Your task to perform on an android device: change the clock style Image 0: 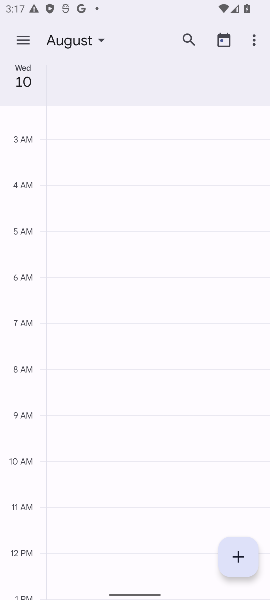
Step 0: press home button
Your task to perform on an android device: change the clock style Image 1: 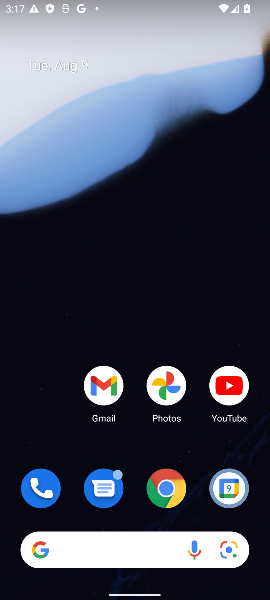
Step 1: drag from (200, 474) to (193, 135)
Your task to perform on an android device: change the clock style Image 2: 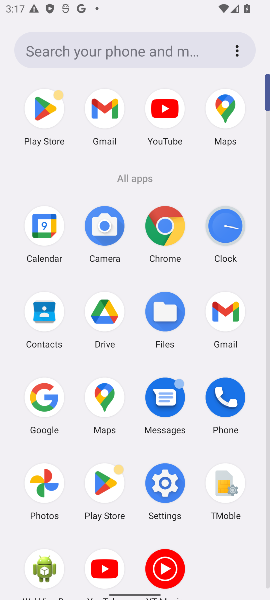
Step 2: click (227, 237)
Your task to perform on an android device: change the clock style Image 3: 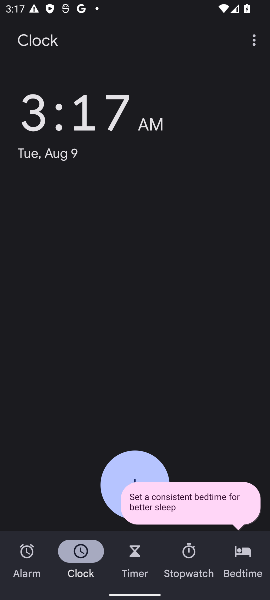
Step 3: click (252, 48)
Your task to perform on an android device: change the clock style Image 4: 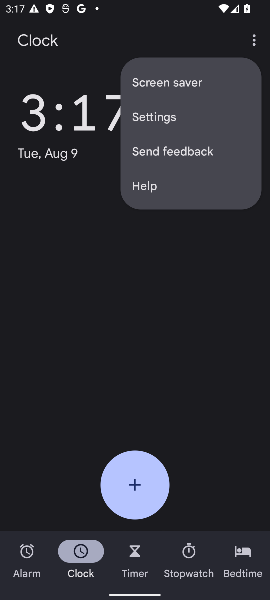
Step 4: click (180, 119)
Your task to perform on an android device: change the clock style Image 5: 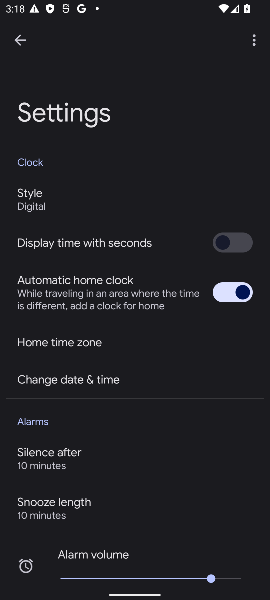
Step 5: click (65, 200)
Your task to perform on an android device: change the clock style Image 6: 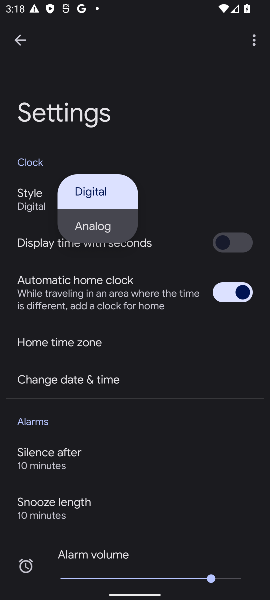
Step 6: click (99, 233)
Your task to perform on an android device: change the clock style Image 7: 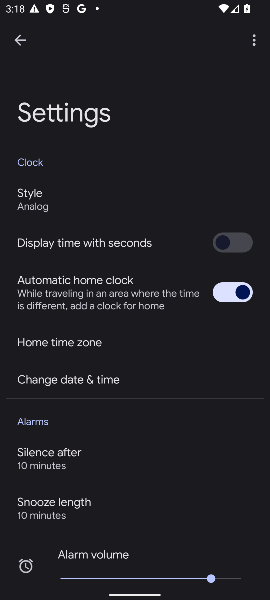
Step 7: task complete